Your task to perform on an android device: turn off translation in the chrome app Image 0: 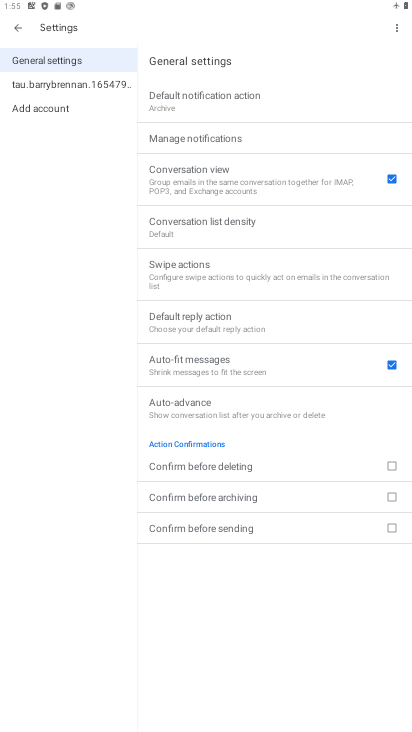
Step 0: press home button
Your task to perform on an android device: turn off translation in the chrome app Image 1: 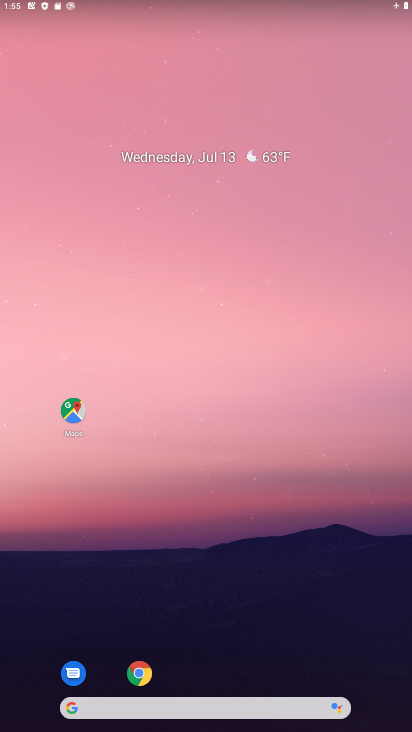
Step 1: drag from (283, 599) to (310, 267)
Your task to perform on an android device: turn off translation in the chrome app Image 2: 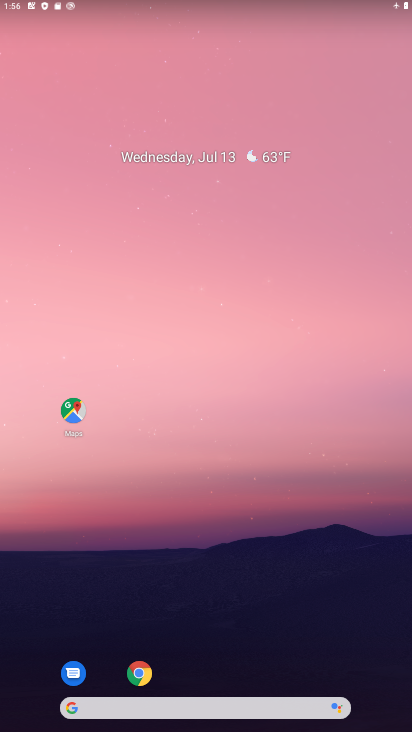
Step 2: drag from (231, 672) to (229, 258)
Your task to perform on an android device: turn off translation in the chrome app Image 3: 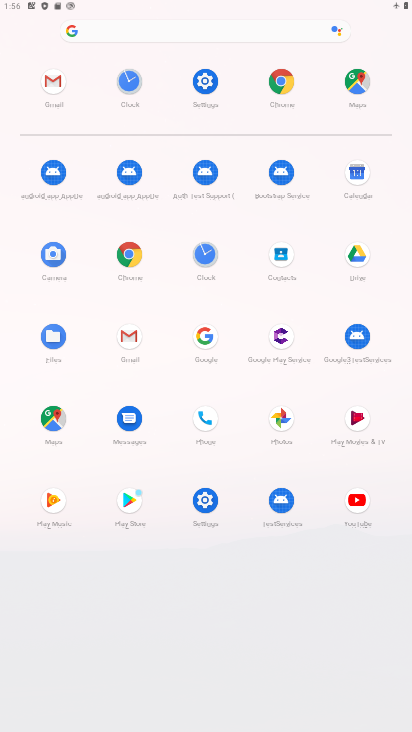
Step 3: click (279, 72)
Your task to perform on an android device: turn off translation in the chrome app Image 4: 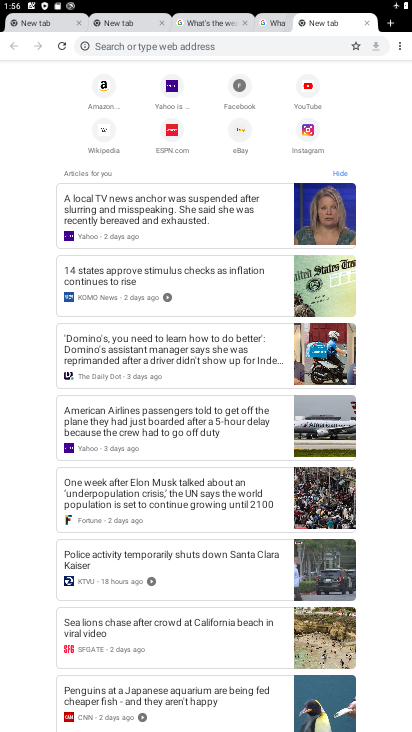
Step 4: click (399, 41)
Your task to perform on an android device: turn off translation in the chrome app Image 5: 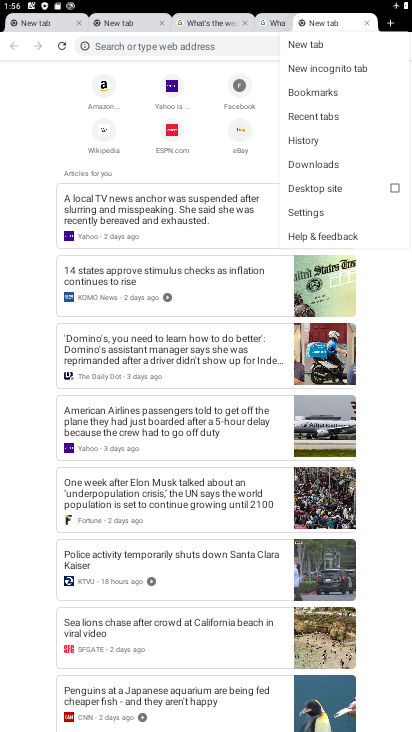
Step 5: click (324, 207)
Your task to perform on an android device: turn off translation in the chrome app Image 6: 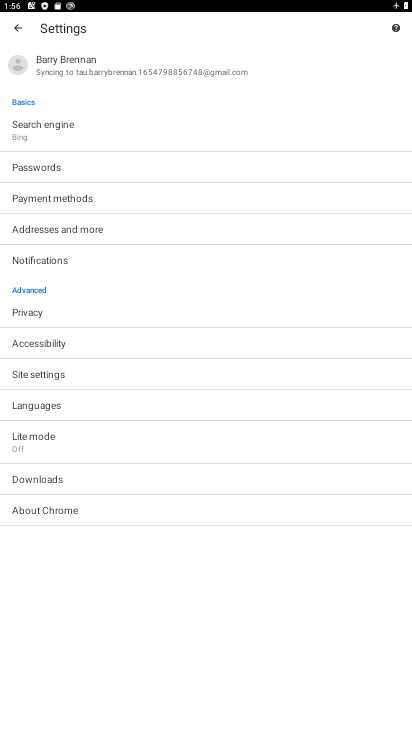
Step 6: click (85, 405)
Your task to perform on an android device: turn off translation in the chrome app Image 7: 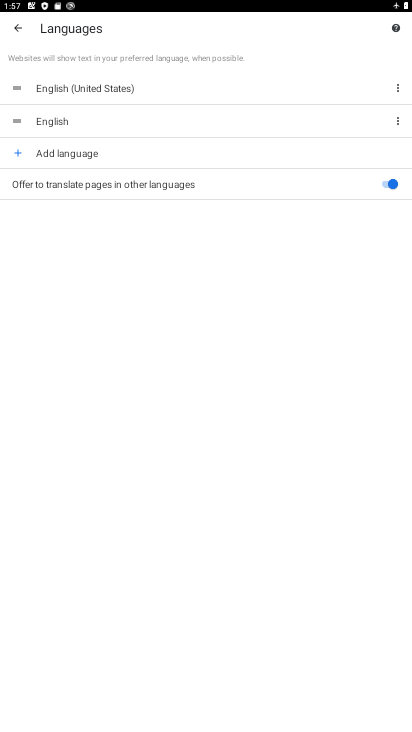
Step 7: click (387, 181)
Your task to perform on an android device: turn off translation in the chrome app Image 8: 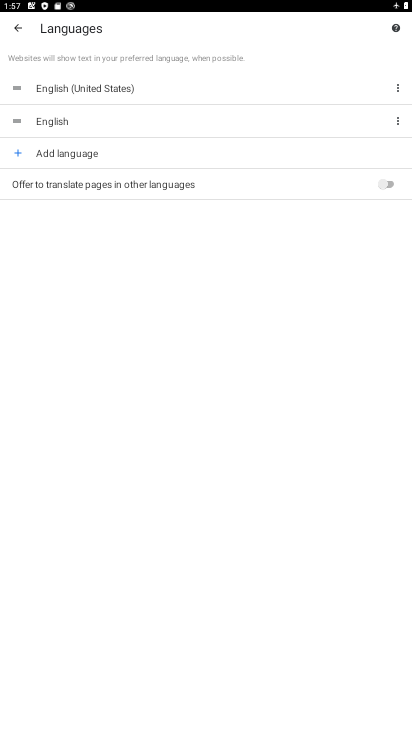
Step 8: task complete